Your task to perform on an android device: set an alarm Image 0: 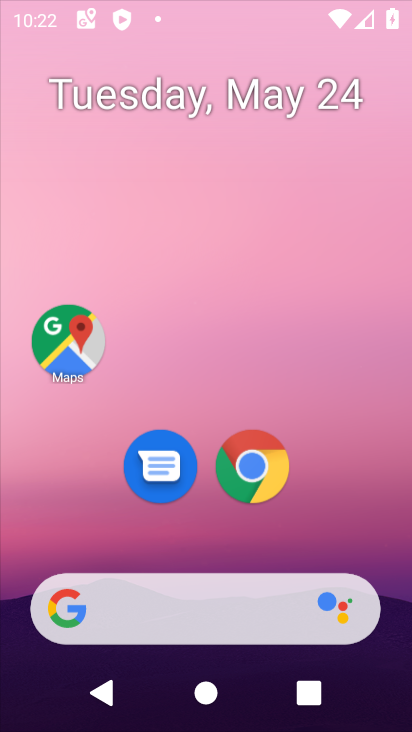
Step 0: drag from (396, 135) to (343, 114)
Your task to perform on an android device: set an alarm Image 1: 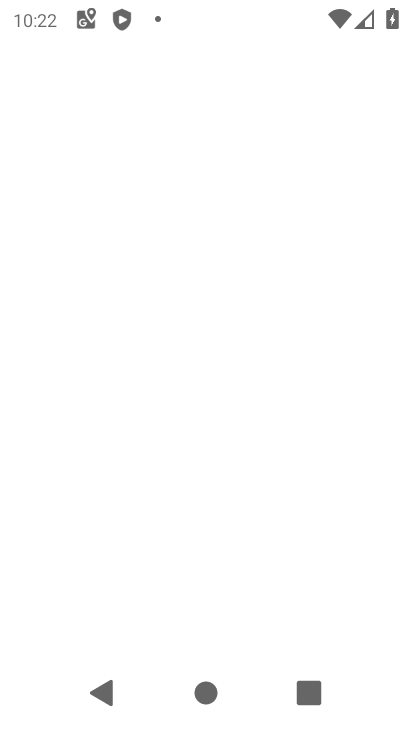
Step 1: press home button
Your task to perform on an android device: set an alarm Image 2: 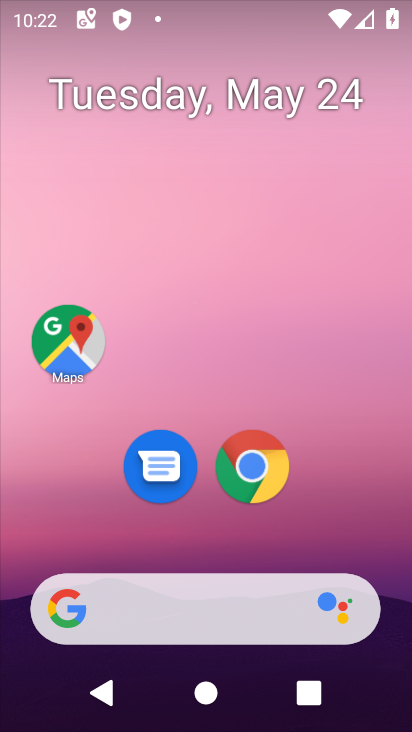
Step 2: drag from (383, 547) to (382, 216)
Your task to perform on an android device: set an alarm Image 3: 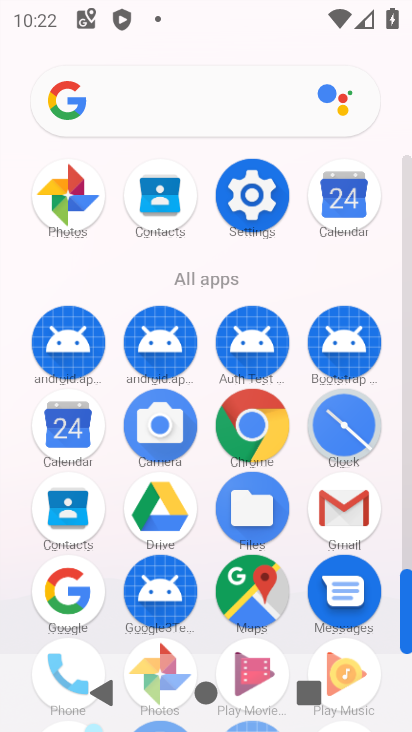
Step 3: click (351, 443)
Your task to perform on an android device: set an alarm Image 4: 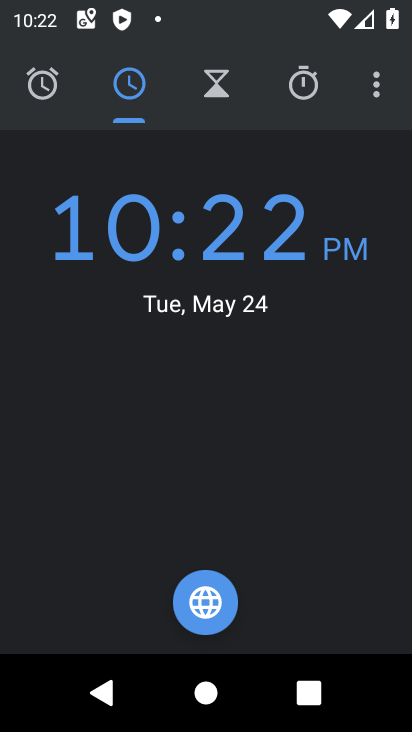
Step 4: click (55, 99)
Your task to perform on an android device: set an alarm Image 5: 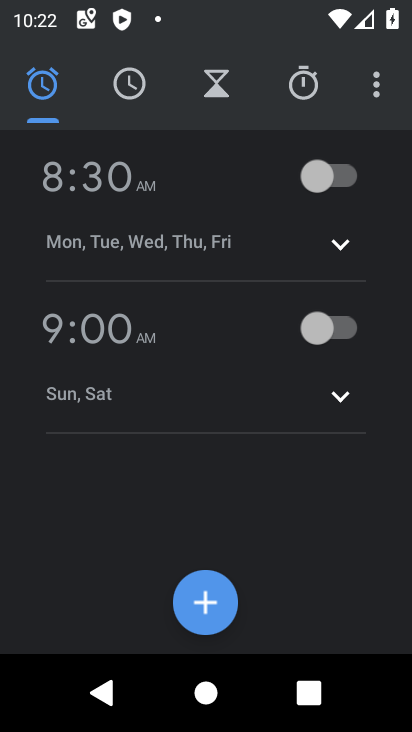
Step 5: click (208, 609)
Your task to perform on an android device: set an alarm Image 6: 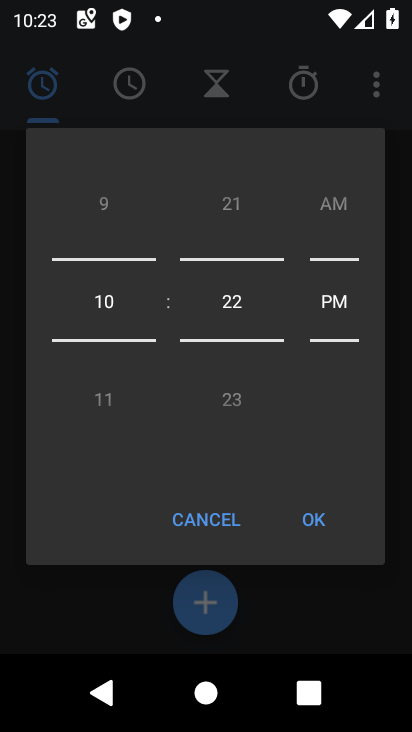
Step 6: click (322, 520)
Your task to perform on an android device: set an alarm Image 7: 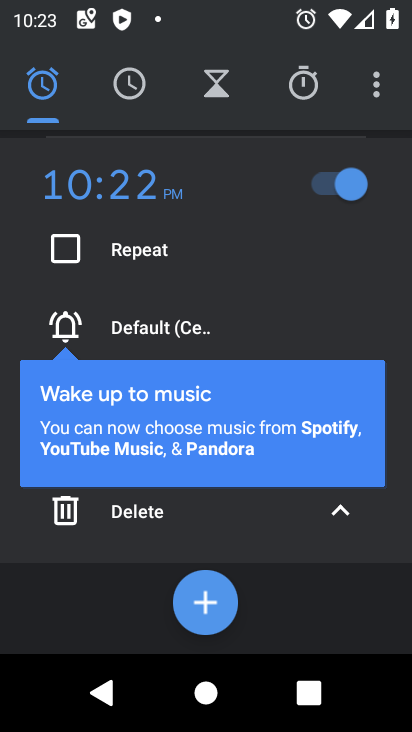
Step 7: task complete